Your task to perform on an android device: Open Chrome and go to settings Image 0: 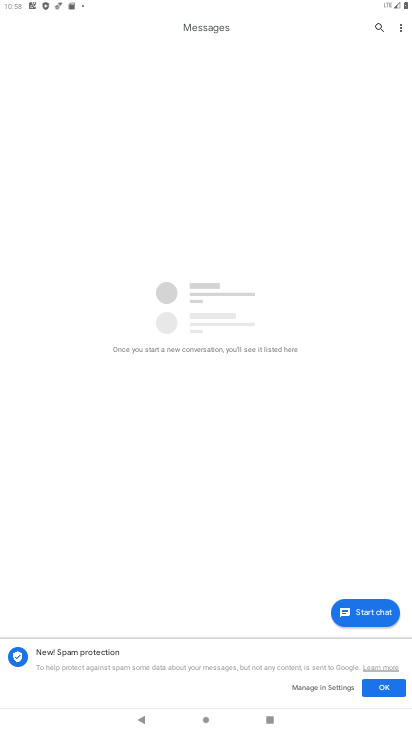
Step 0: press home button
Your task to perform on an android device: Open Chrome and go to settings Image 1: 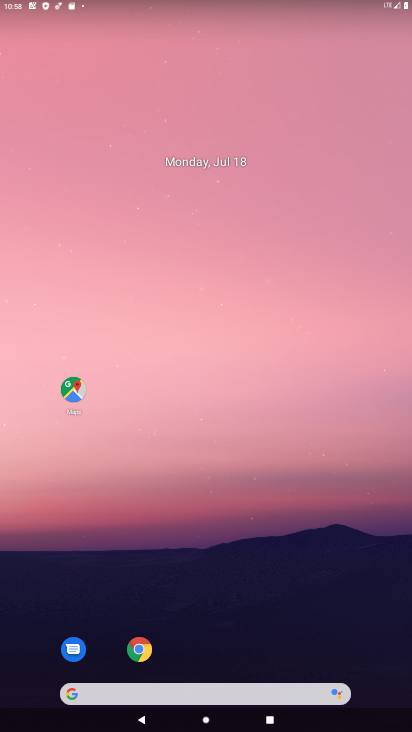
Step 1: click (147, 654)
Your task to perform on an android device: Open Chrome and go to settings Image 2: 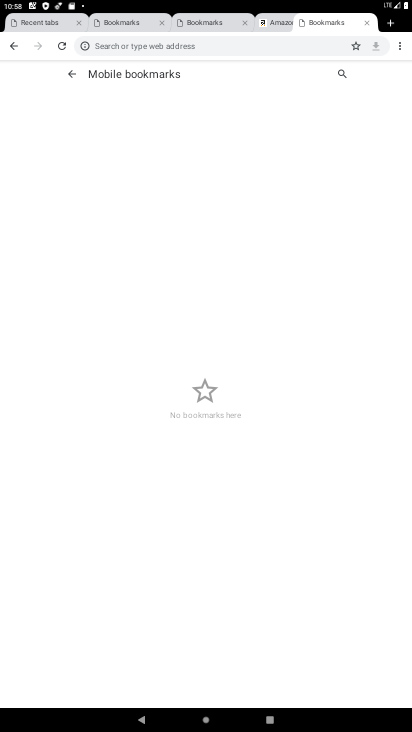
Step 2: click (402, 43)
Your task to perform on an android device: Open Chrome and go to settings Image 3: 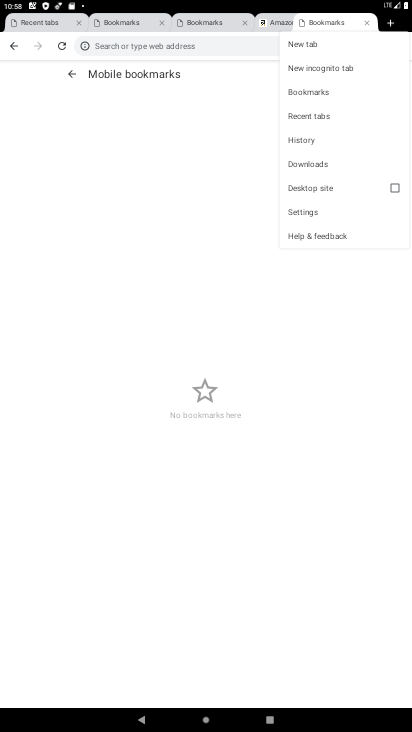
Step 3: click (320, 215)
Your task to perform on an android device: Open Chrome and go to settings Image 4: 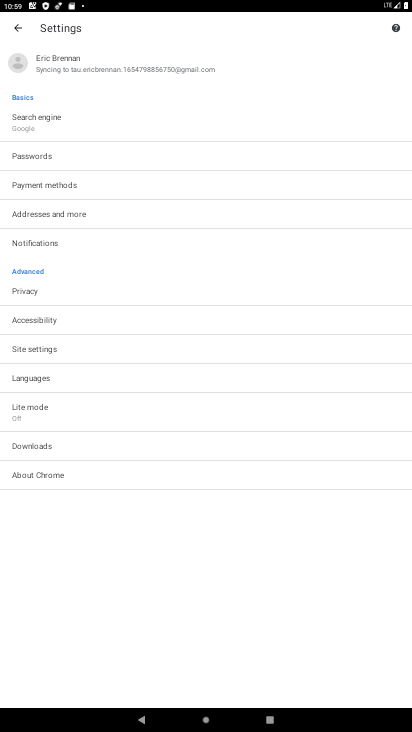
Step 4: task complete